Your task to perform on an android device: Go to ESPN.com Image 0: 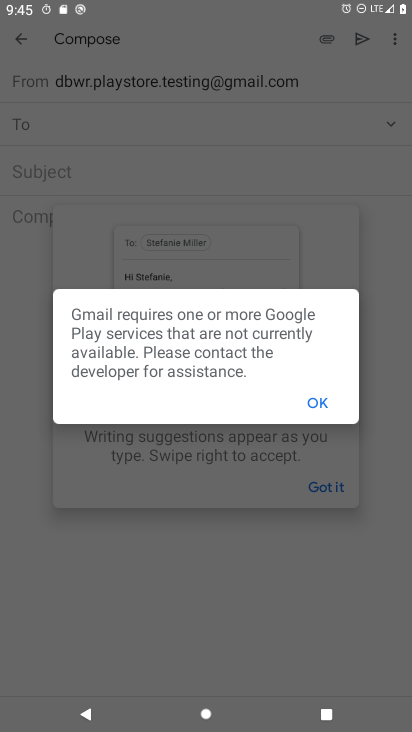
Step 0: press home button
Your task to perform on an android device: Go to ESPN.com Image 1: 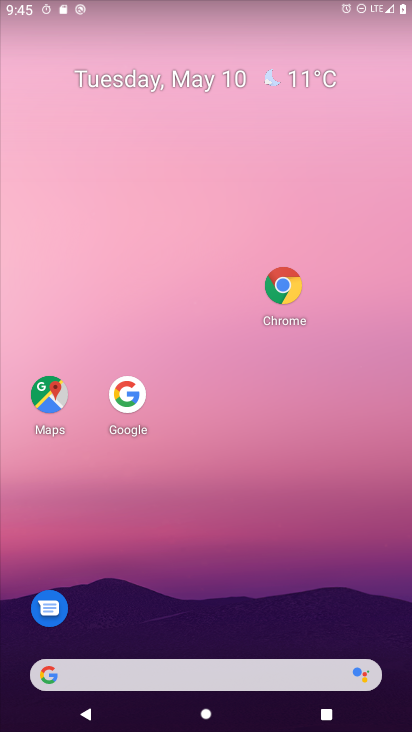
Step 1: drag from (178, 678) to (253, 181)
Your task to perform on an android device: Go to ESPN.com Image 2: 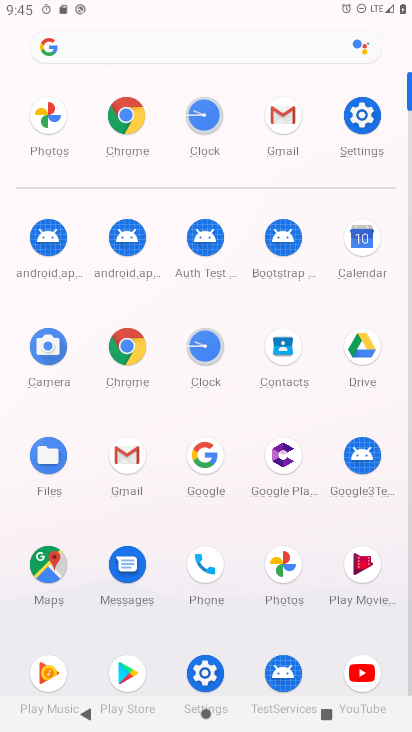
Step 2: click (126, 124)
Your task to perform on an android device: Go to ESPN.com Image 3: 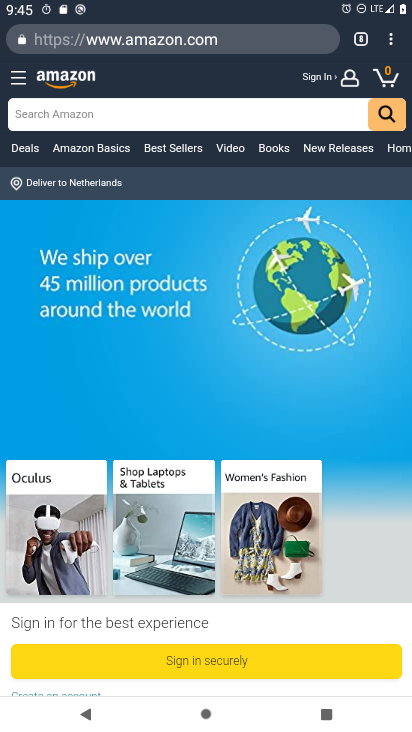
Step 3: drag from (388, 44) to (328, 82)
Your task to perform on an android device: Go to ESPN.com Image 4: 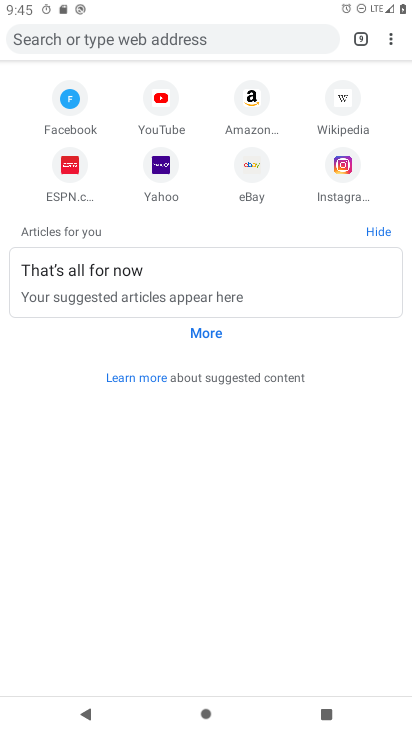
Step 4: click (73, 167)
Your task to perform on an android device: Go to ESPN.com Image 5: 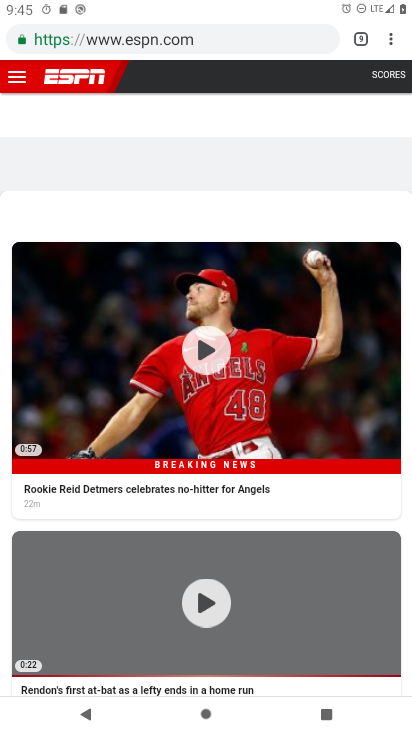
Step 5: task complete